Your task to perform on an android device: Open privacy settings Image 0: 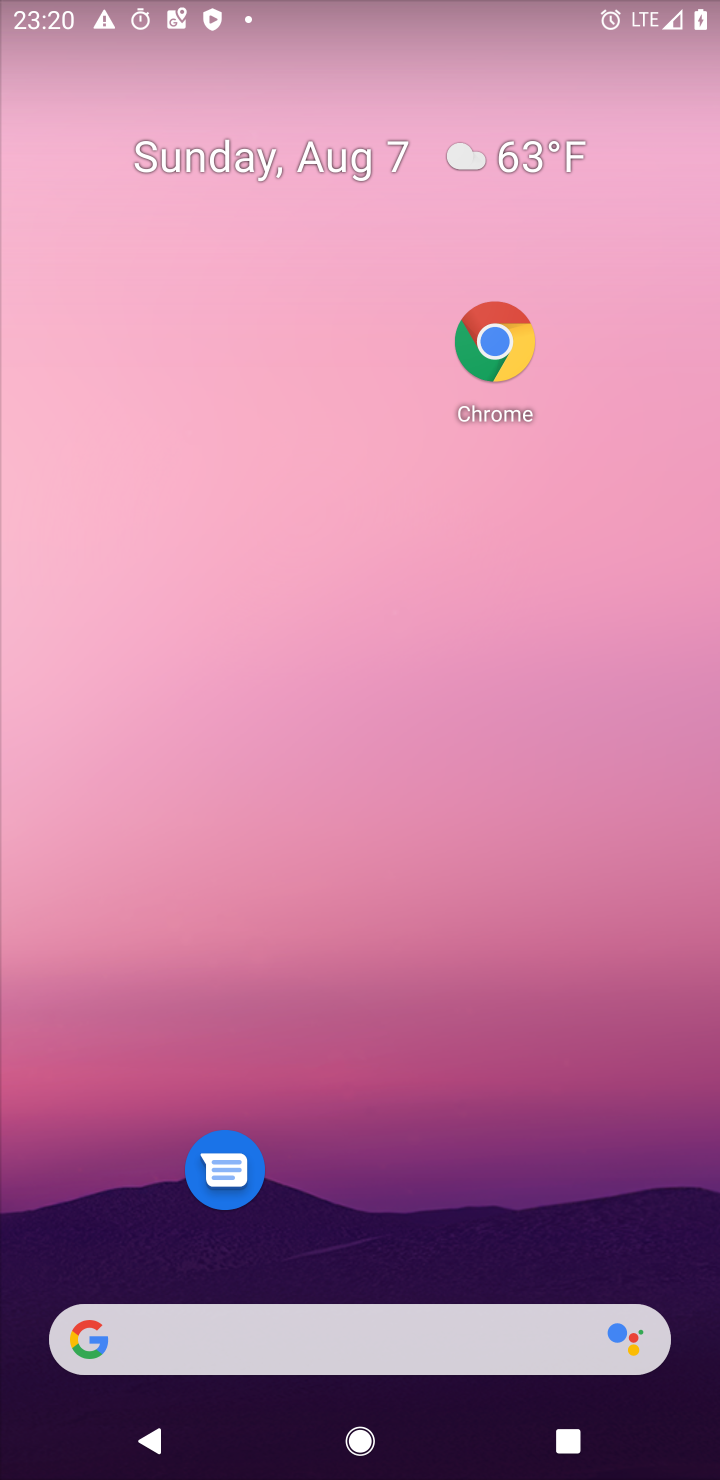
Step 0: drag from (335, 1328) to (310, 212)
Your task to perform on an android device: Open privacy settings Image 1: 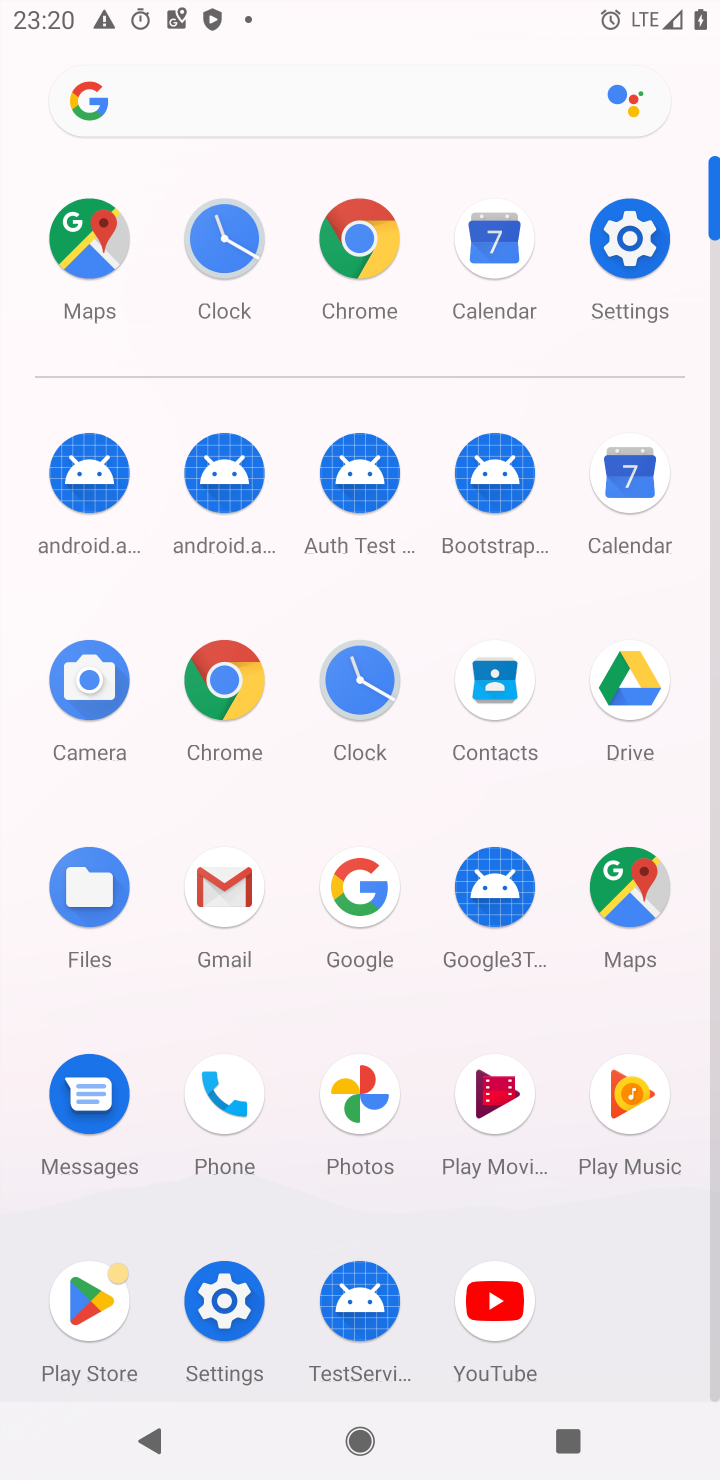
Step 1: click (641, 220)
Your task to perform on an android device: Open privacy settings Image 2: 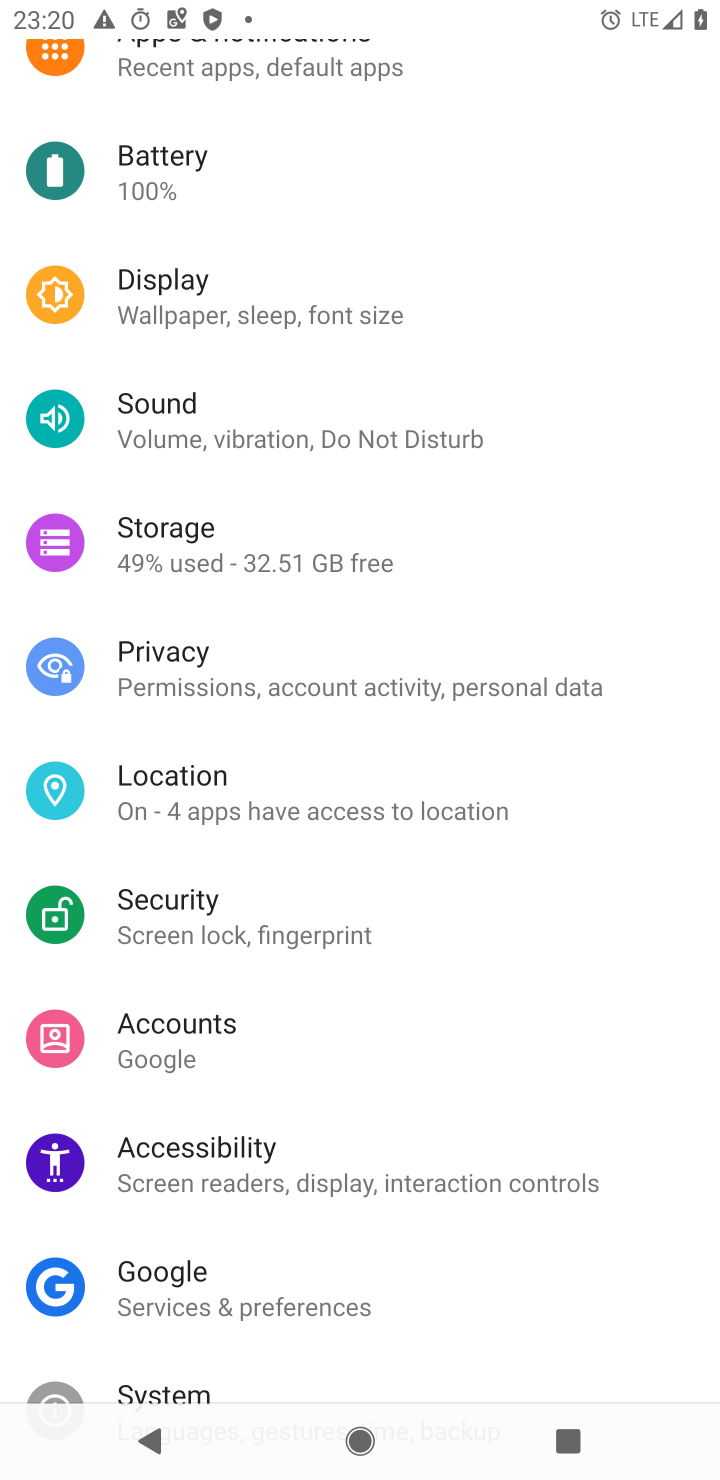
Step 2: click (239, 671)
Your task to perform on an android device: Open privacy settings Image 3: 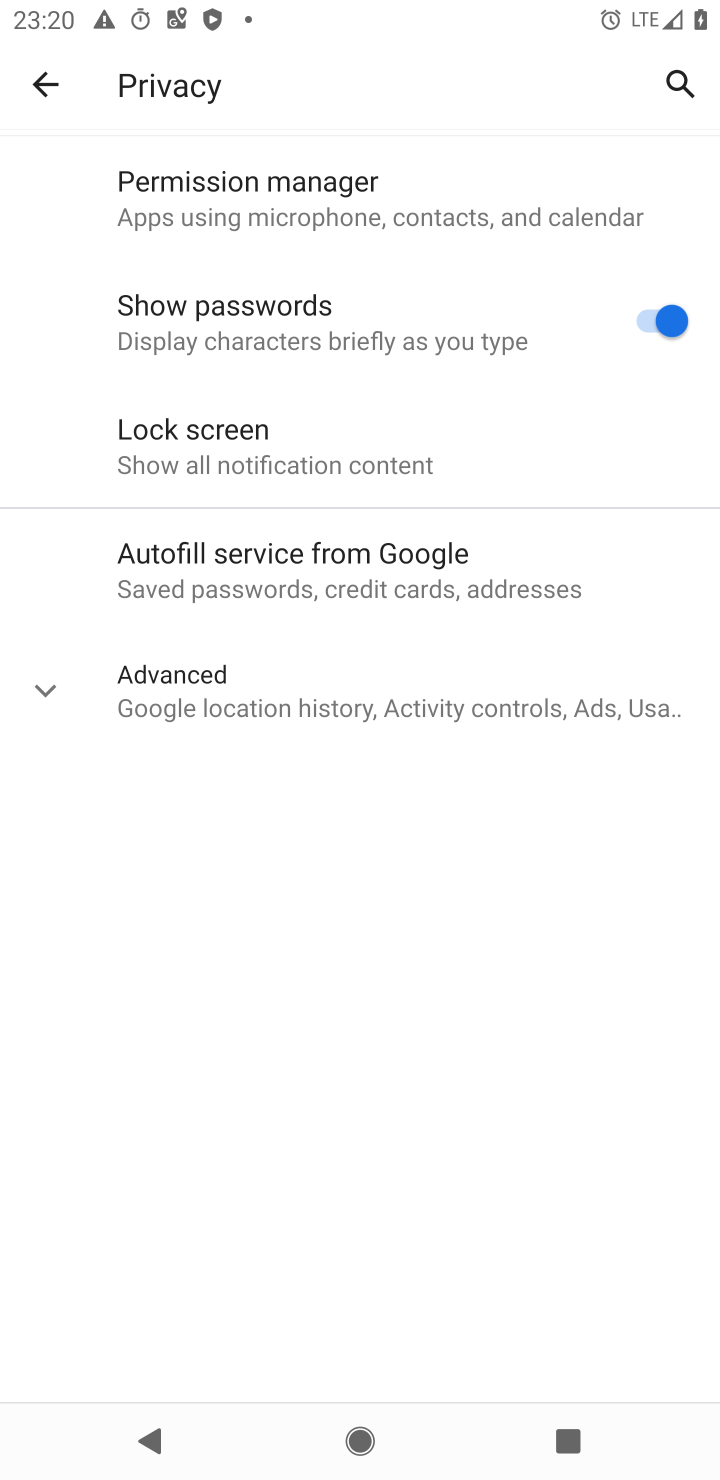
Step 3: task complete